Your task to perform on an android device: Open Reddit.com Image 0: 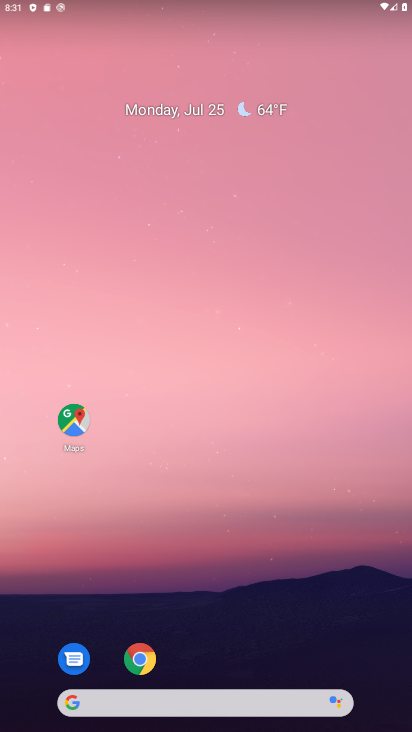
Step 0: drag from (347, 572) to (359, 106)
Your task to perform on an android device: Open Reddit.com Image 1: 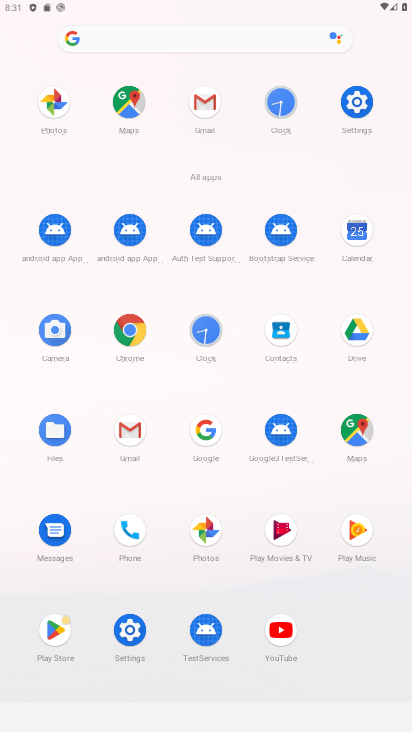
Step 1: click (131, 336)
Your task to perform on an android device: Open Reddit.com Image 2: 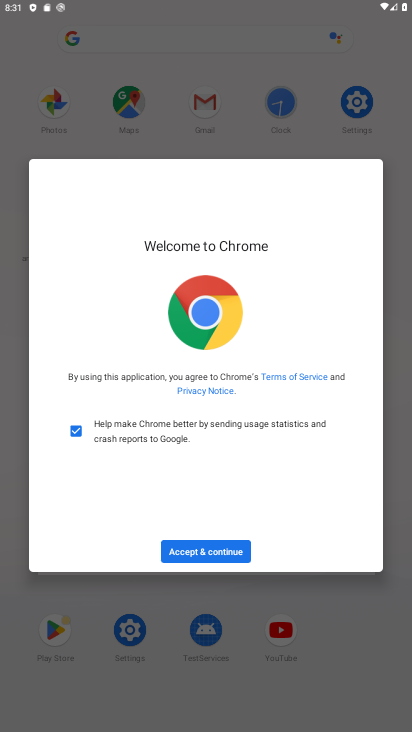
Step 2: click (198, 552)
Your task to perform on an android device: Open Reddit.com Image 3: 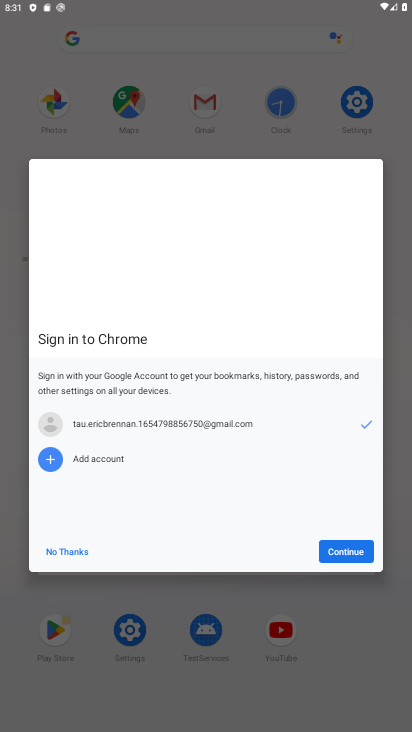
Step 3: click (350, 544)
Your task to perform on an android device: Open Reddit.com Image 4: 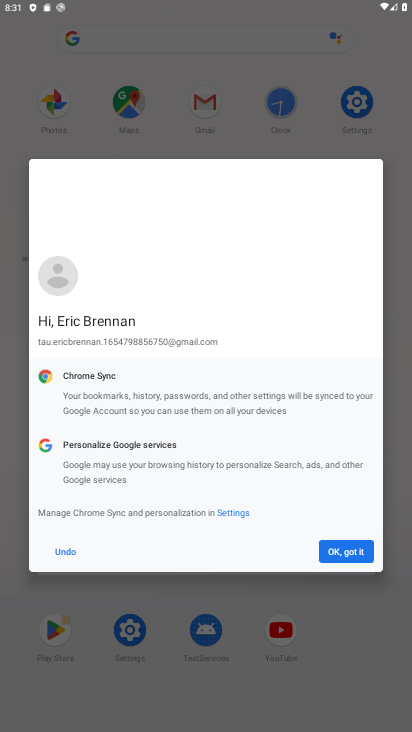
Step 4: click (350, 544)
Your task to perform on an android device: Open Reddit.com Image 5: 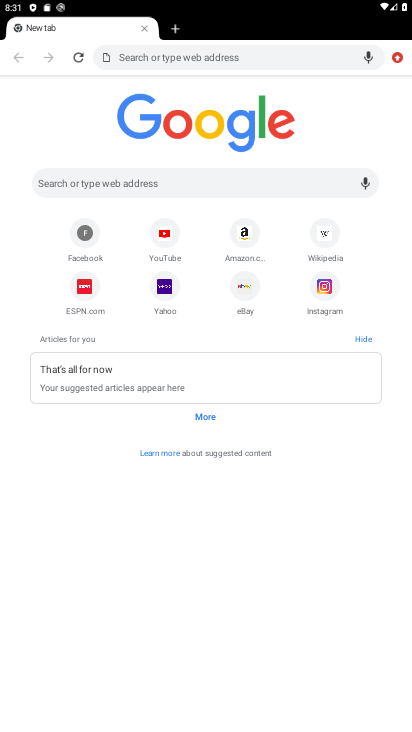
Step 5: click (282, 54)
Your task to perform on an android device: Open Reddit.com Image 6: 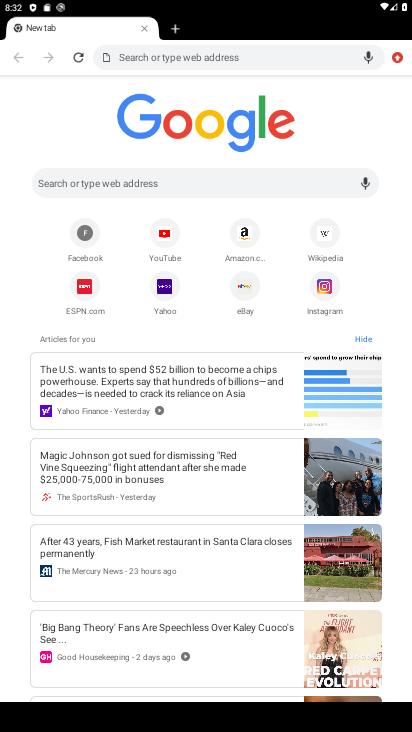
Step 6: type "reddit.com"
Your task to perform on an android device: Open Reddit.com Image 7: 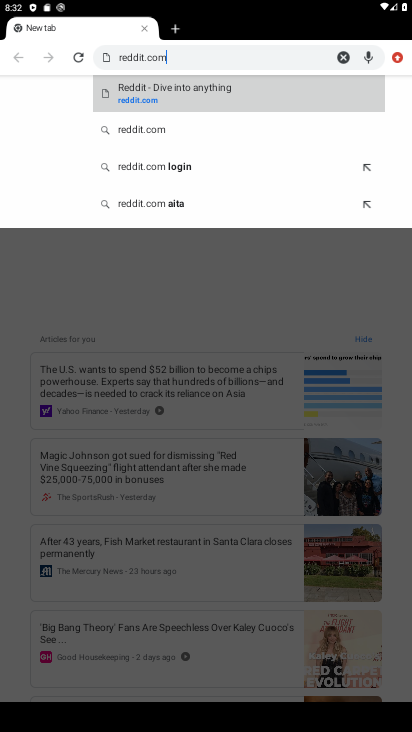
Step 7: click (282, 95)
Your task to perform on an android device: Open Reddit.com Image 8: 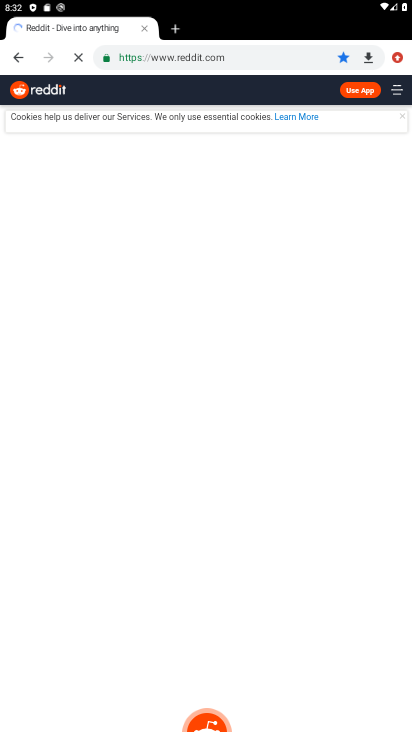
Step 8: task complete